Your task to perform on an android device: read, delete, or share a saved page in the chrome app Image 0: 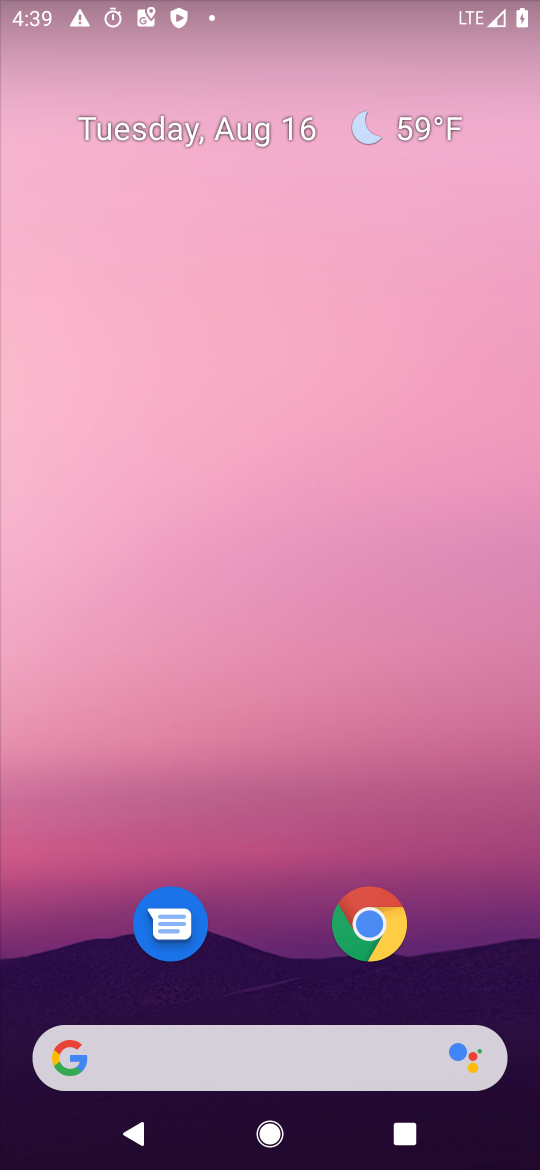
Step 0: click (390, 921)
Your task to perform on an android device: read, delete, or share a saved page in the chrome app Image 1: 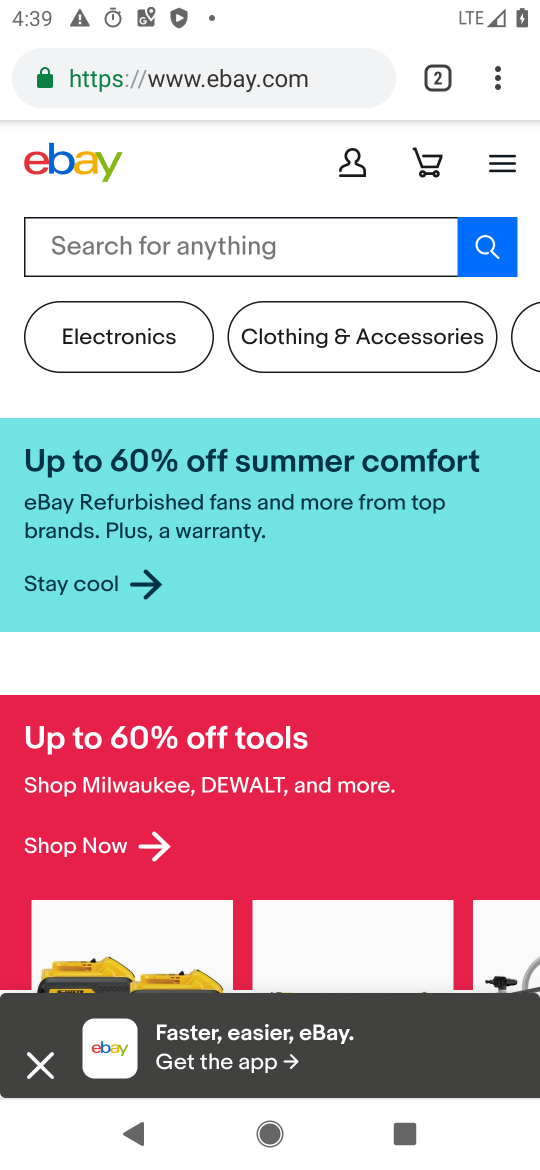
Step 1: click (498, 72)
Your task to perform on an android device: read, delete, or share a saved page in the chrome app Image 2: 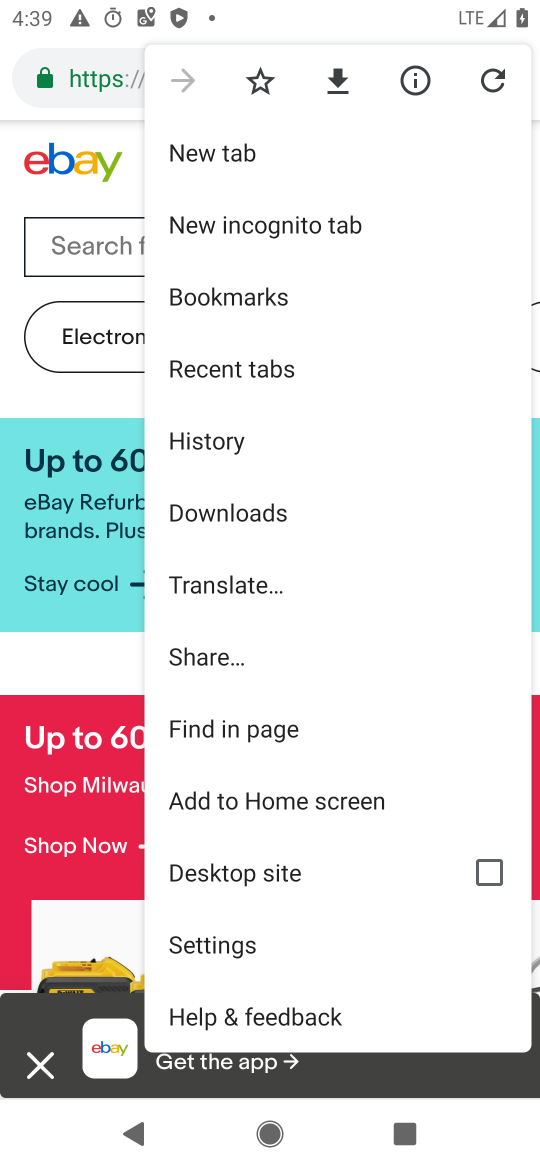
Step 2: click (213, 509)
Your task to perform on an android device: read, delete, or share a saved page in the chrome app Image 3: 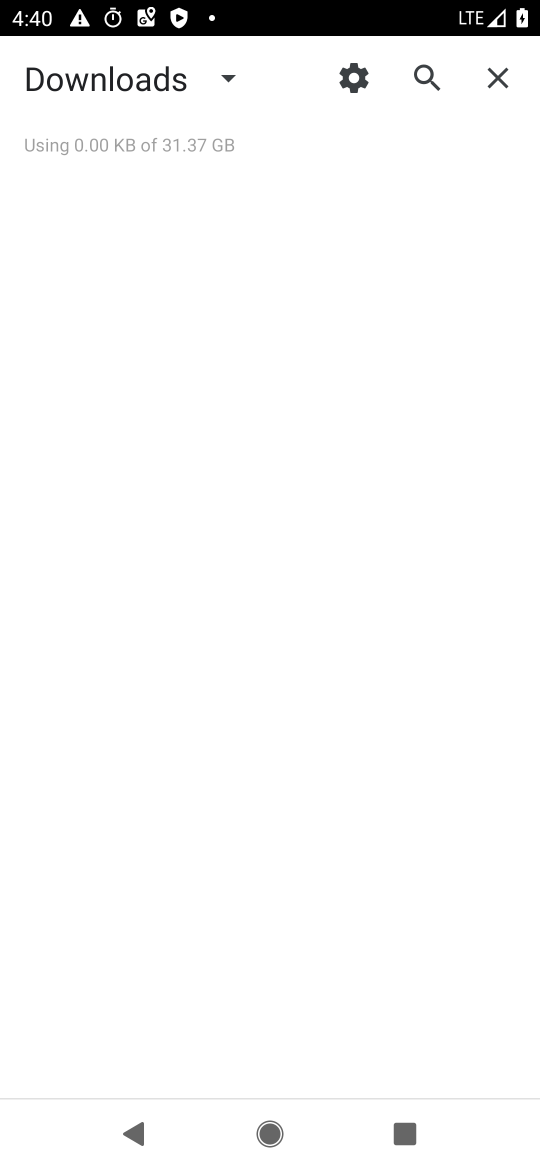
Step 3: task complete